Your task to perform on an android device: find which apps use the phone's location Image 0: 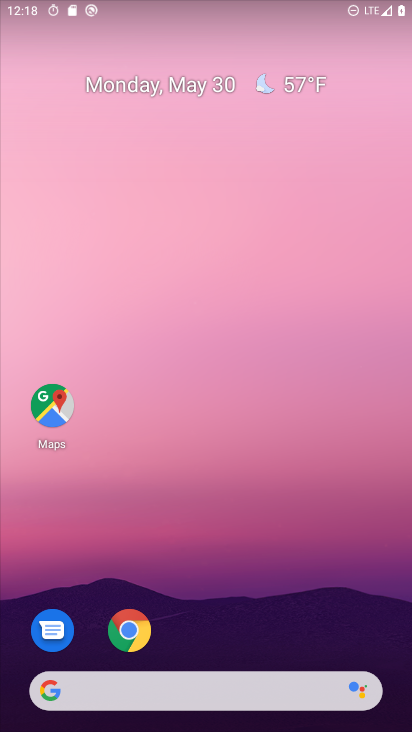
Step 0: drag from (197, 696) to (254, 173)
Your task to perform on an android device: find which apps use the phone's location Image 1: 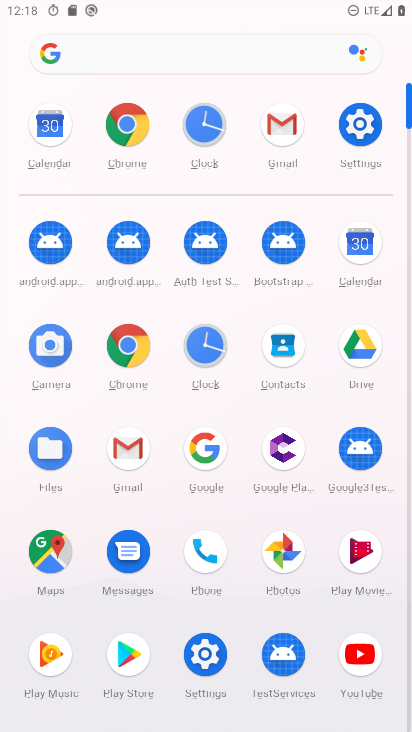
Step 1: click (214, 650)
Your task to perform on an android device: find which apps use the phone's location Image 2: 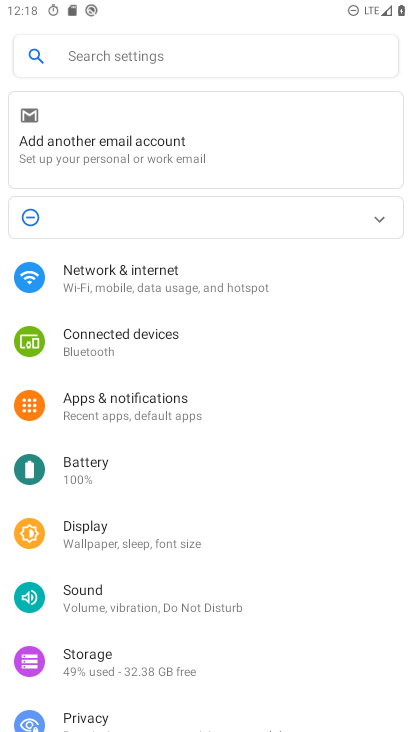
Step 2: click (175, 49)
Your task to perform on an android device: find which apps use the phone's location Image 3: 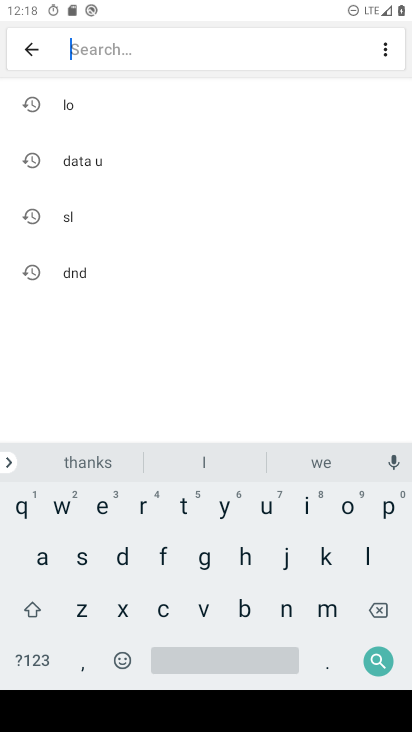
Step 3: click (88, 89)
Your task to perform on an android device: find which apps use the phone's location Image 4: 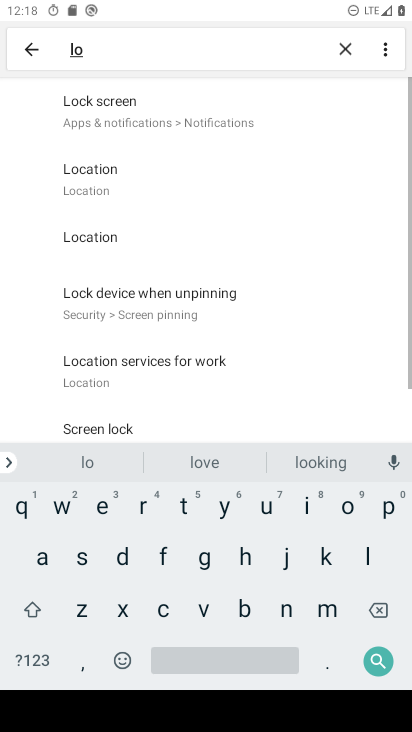
Step 4: click (124, 192)
Your task to perform on an android device: find which apps use the phone's location Image 5: 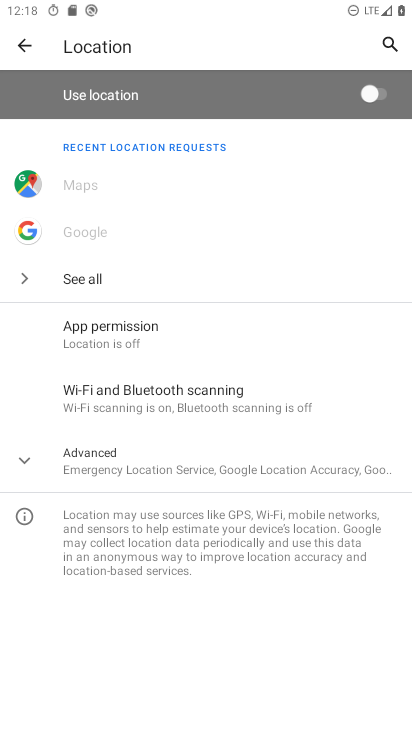
Step 5: task complete